Your task to perform on an android device: Go to CNN.com Image 0: 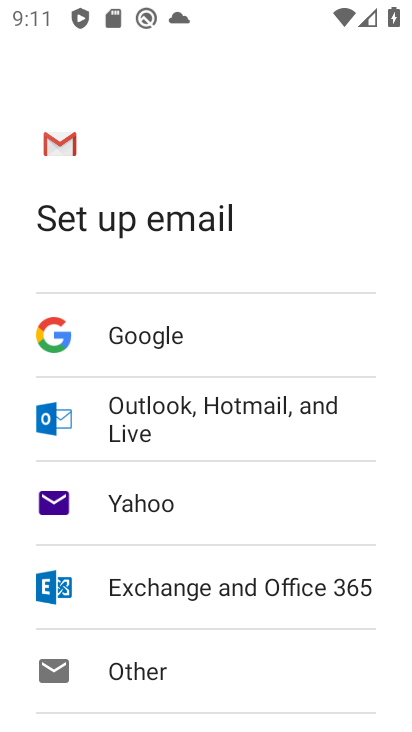
Step 0: press home button
Your task to perform on an android device: Go to CNN.com Image 1: 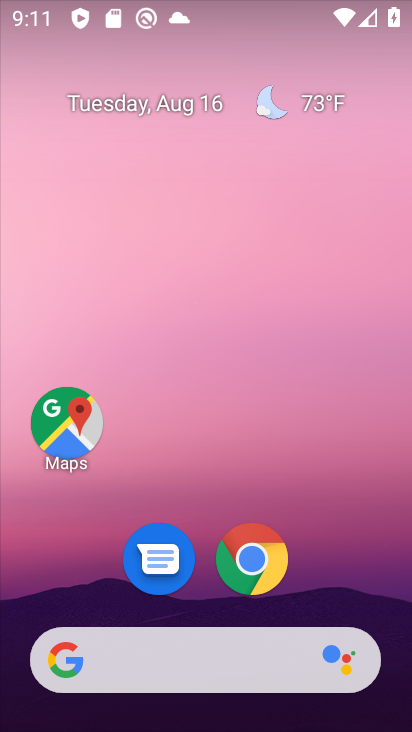
Step 1: drag from (327, 565) to (306, 89)
Your task to perform on an android device: Go to CNN.com Image 2: 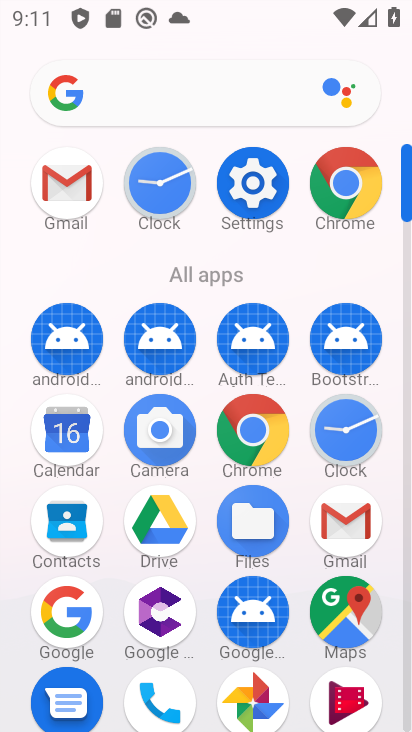
Step 2: click (243, 419)
Your task to perform on an android device: Go to CNN.com Image 3: 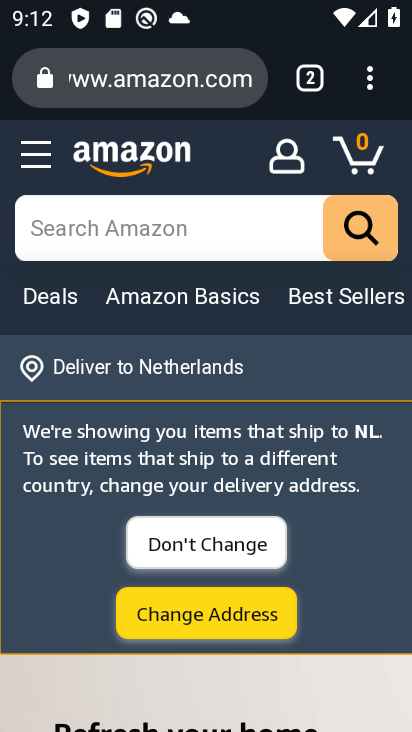
Step 3: click (141, 75)
Your task to perform on an android device: Go to CNN.com Image 4: 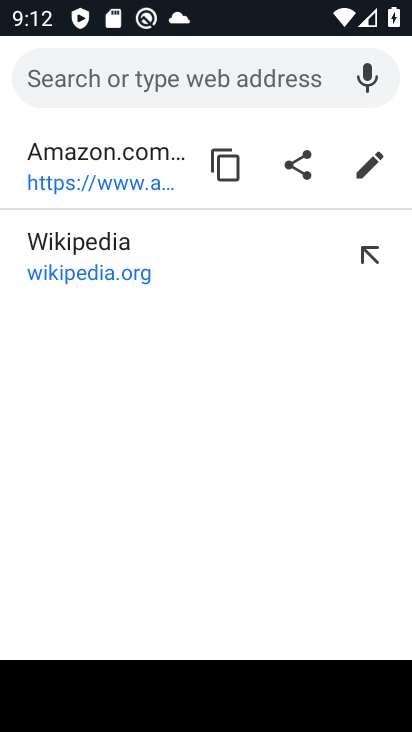
Step 4: type "CNN.com"
Your task to perform on an android device: Go to CNN.com Image 5: 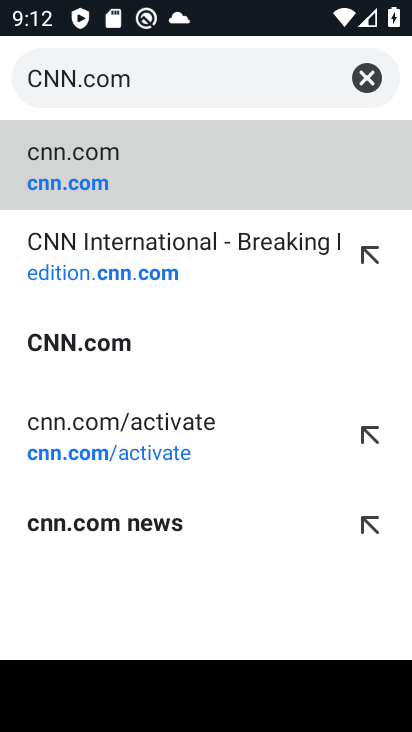
Step 5: click (82, 179)
Your task to perform on an android device: Go to CNN.com Image 6: 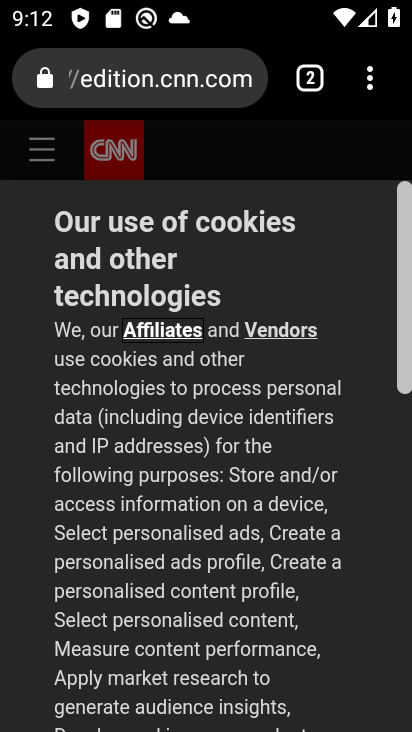
Step 6: task complete